Your task to perform on an android device: uninstall "Truecaller" Image 0: 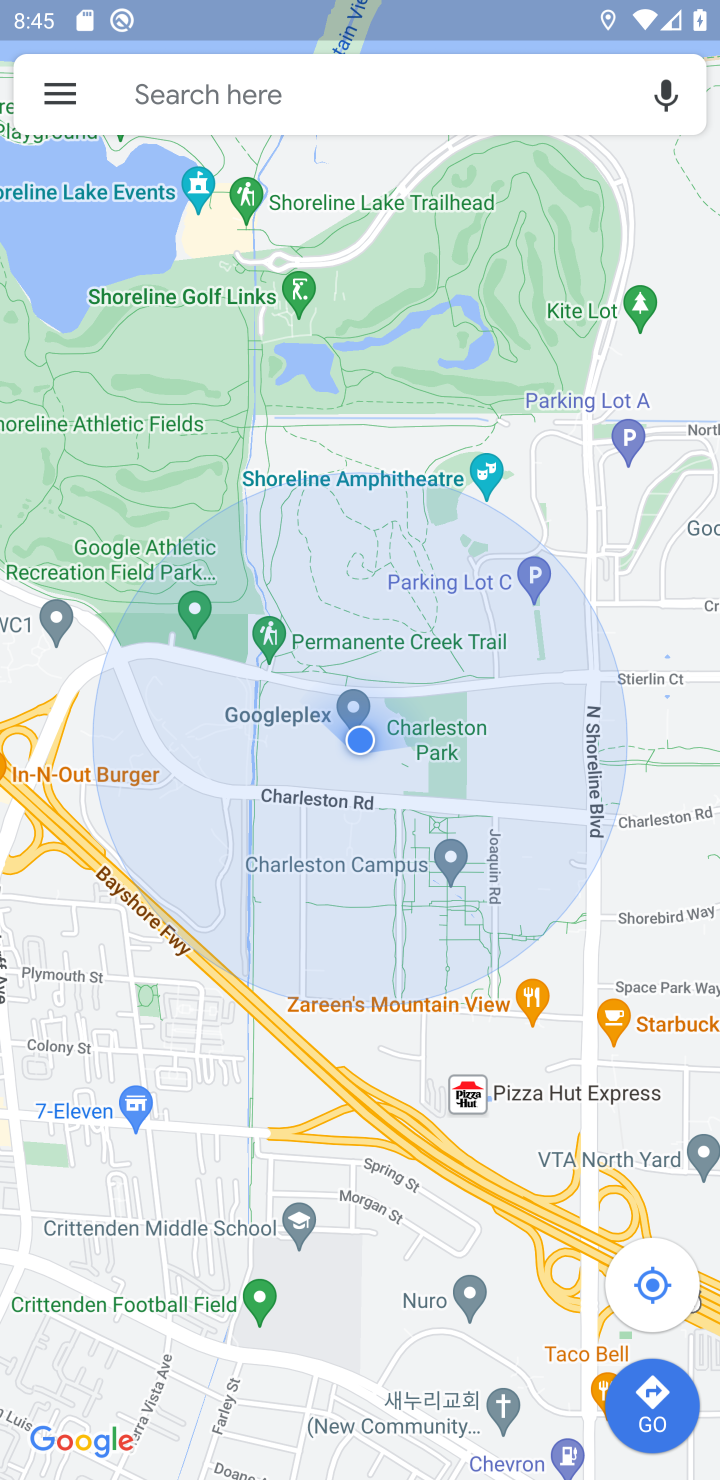
Step 0: press home button
Your task to perform on an android device: uninstall "Truecaller" Image 1: 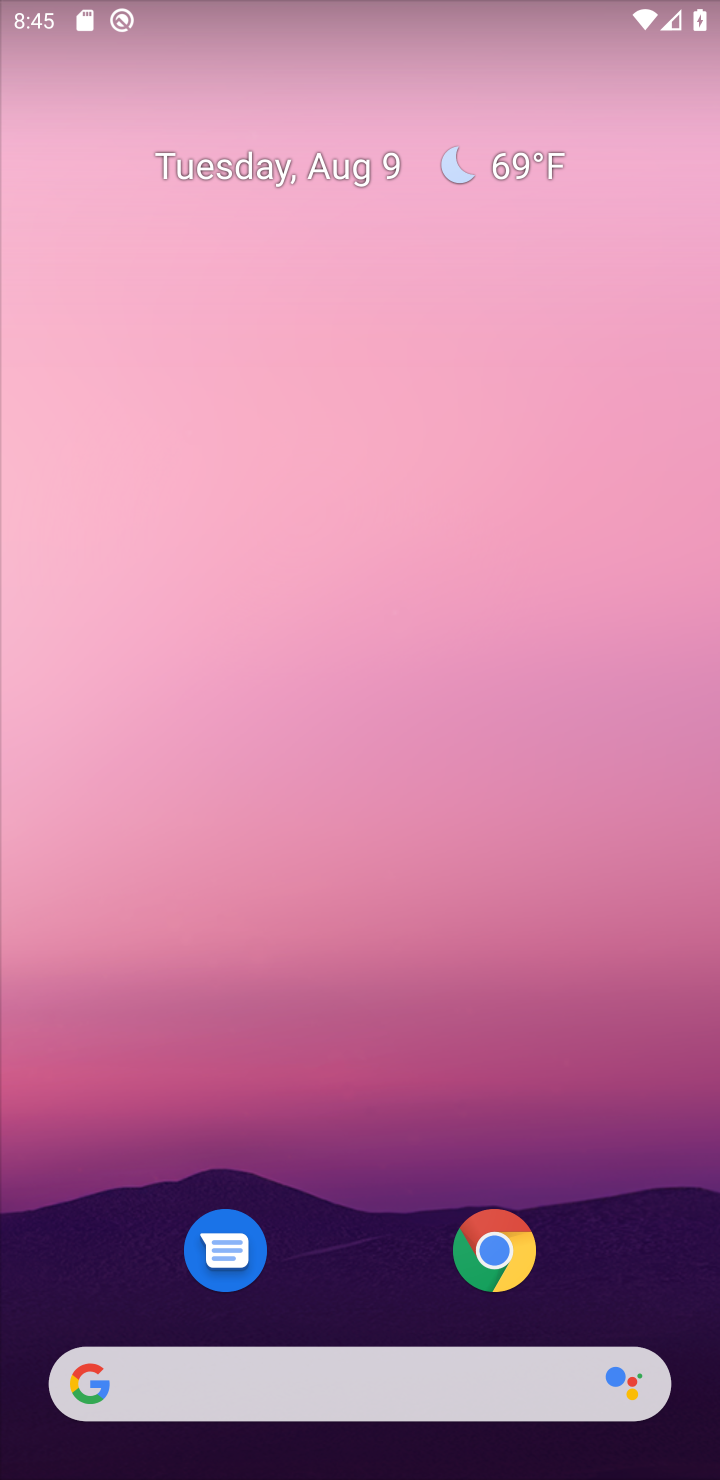
Step 1: drag from (706, 1006) to (683, 62)
Your task to perform on an android device: uninstall "Truecaller" Image 2: 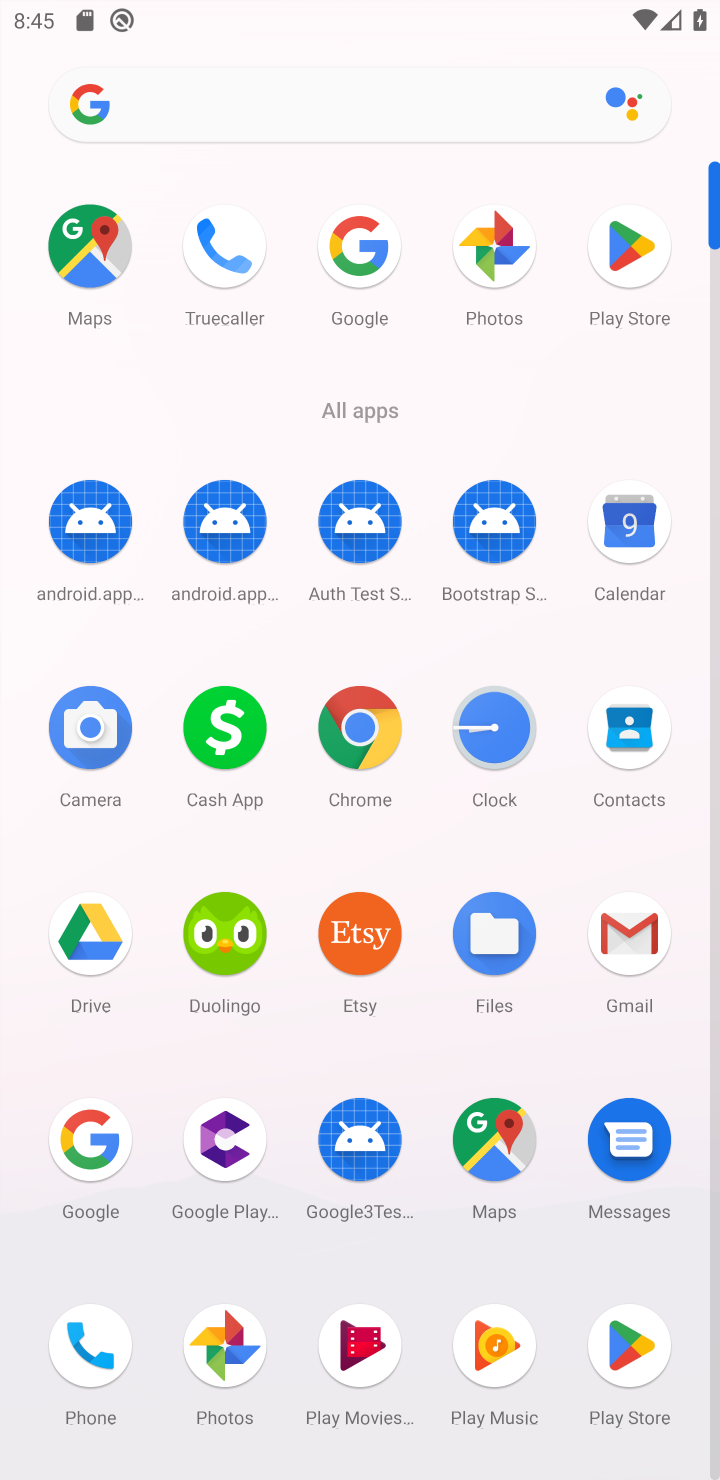
Step 2: click (638, 237)
Your task to perform on an android device: uninstall "Truecaller" Image 3: 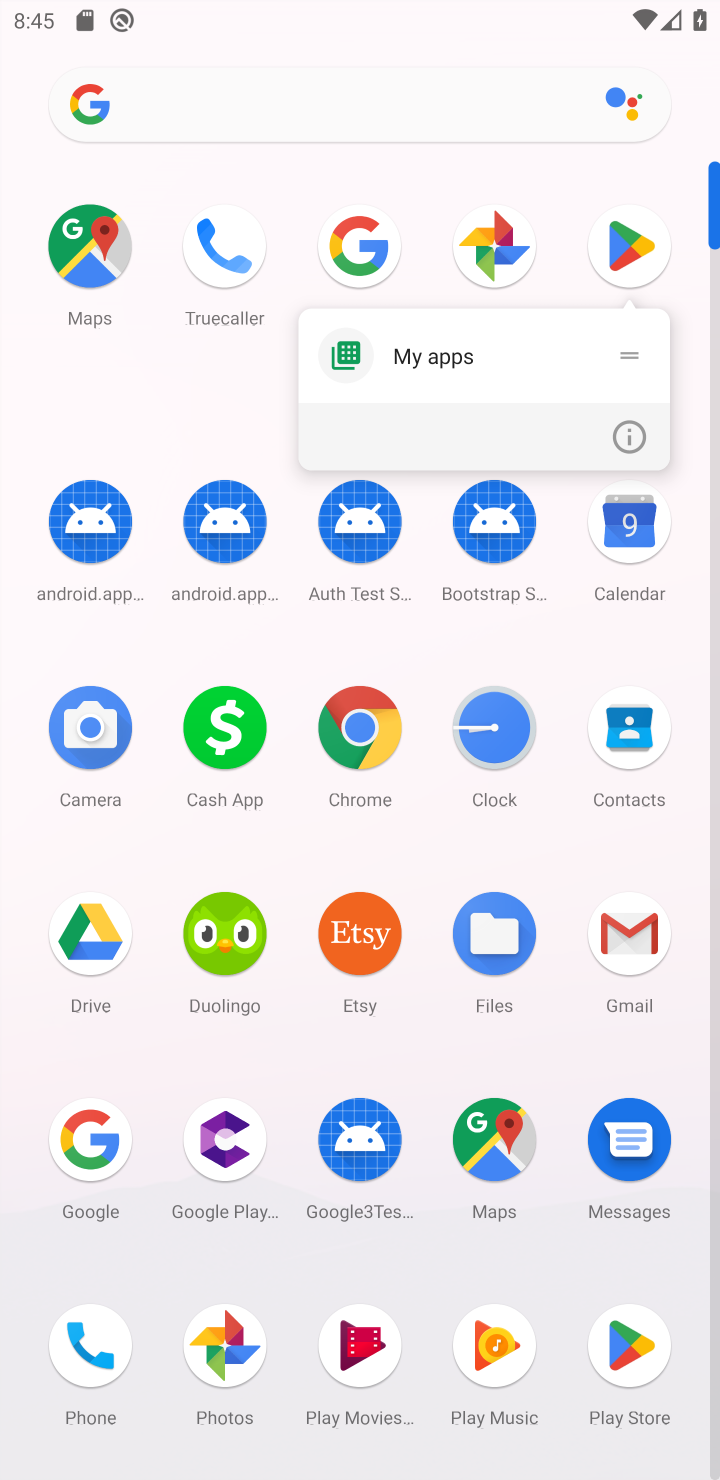
Step 3: click (280, 99)
Your task to perform on an android device: uninstall "Truecaller" Image 4: 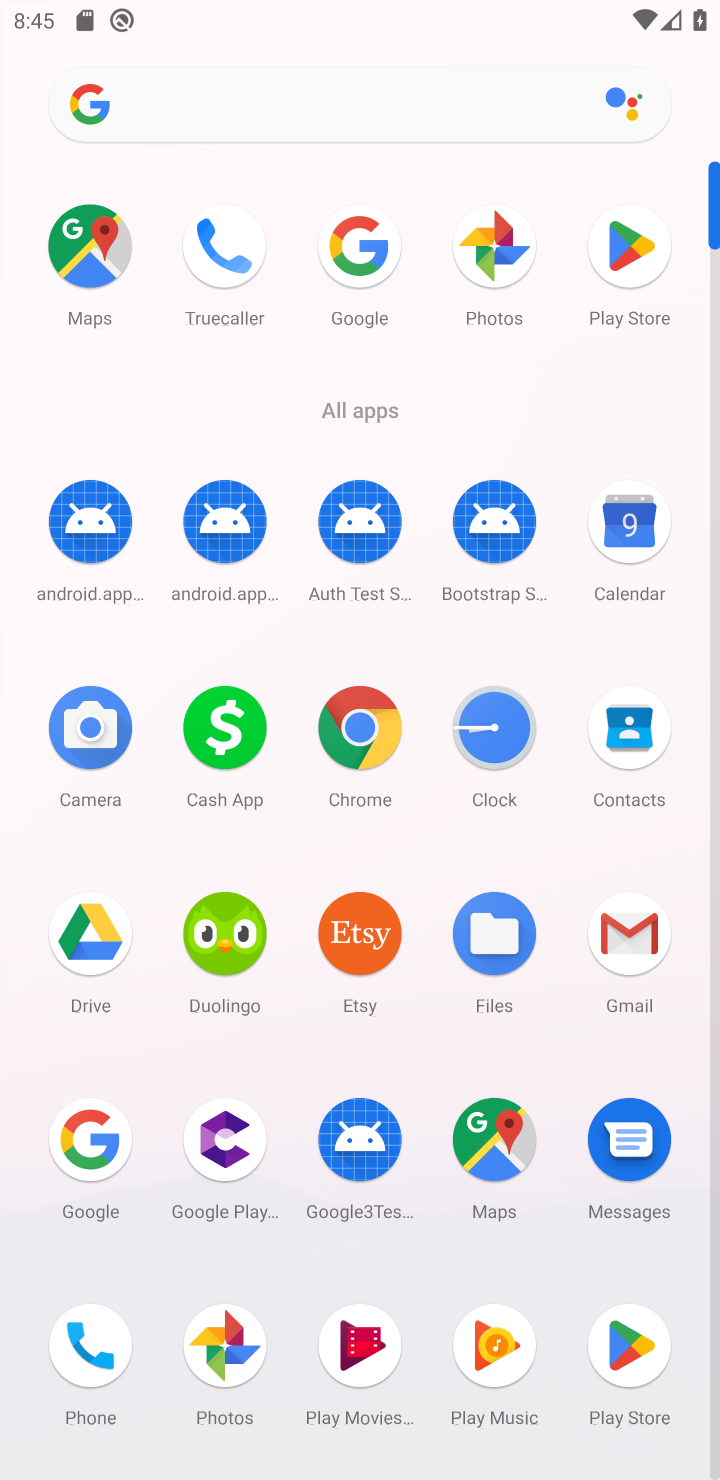
Step 4: type "ruecaller"
Your task to perform on an android device: uninstall "Truecaller" Image 5: 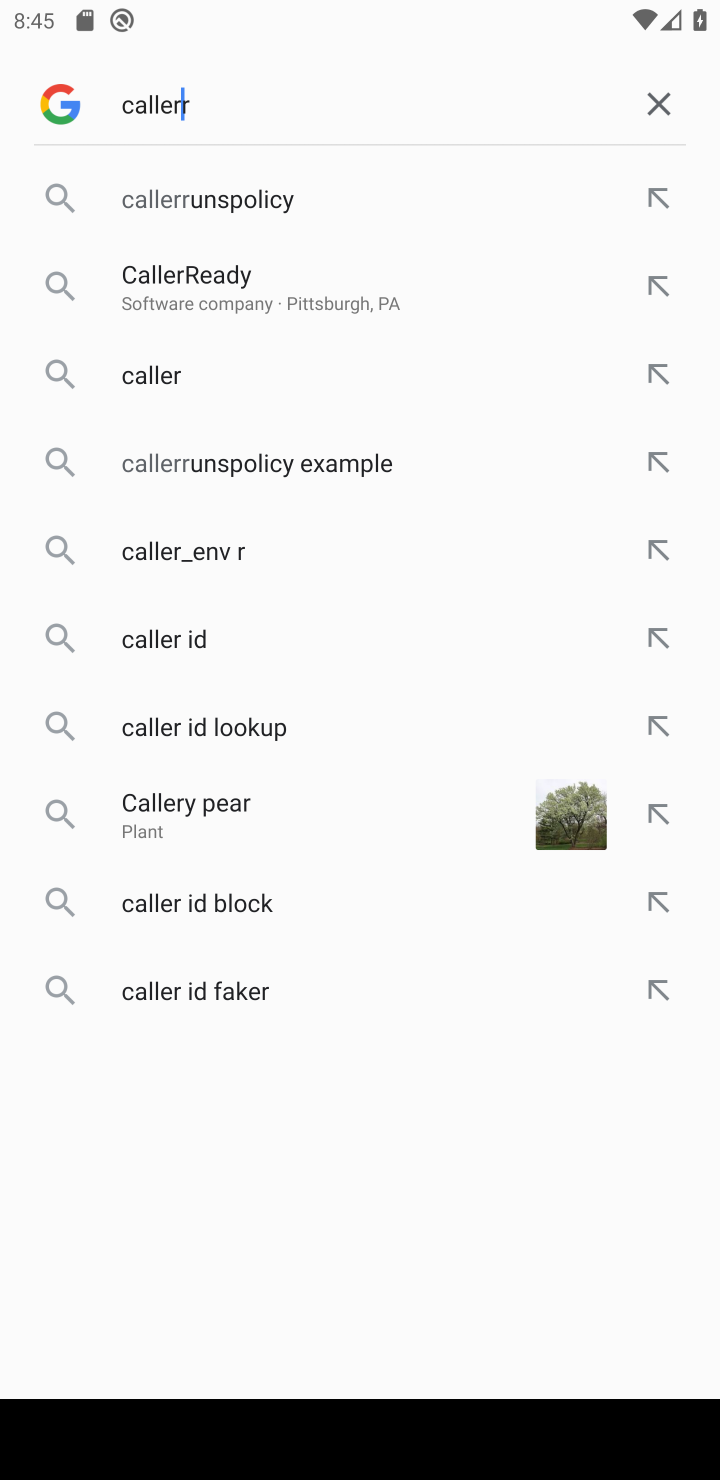
Step 5: click (671, 100)
Your task to perform on an android device: uninstall "Truecaller" Image 6: 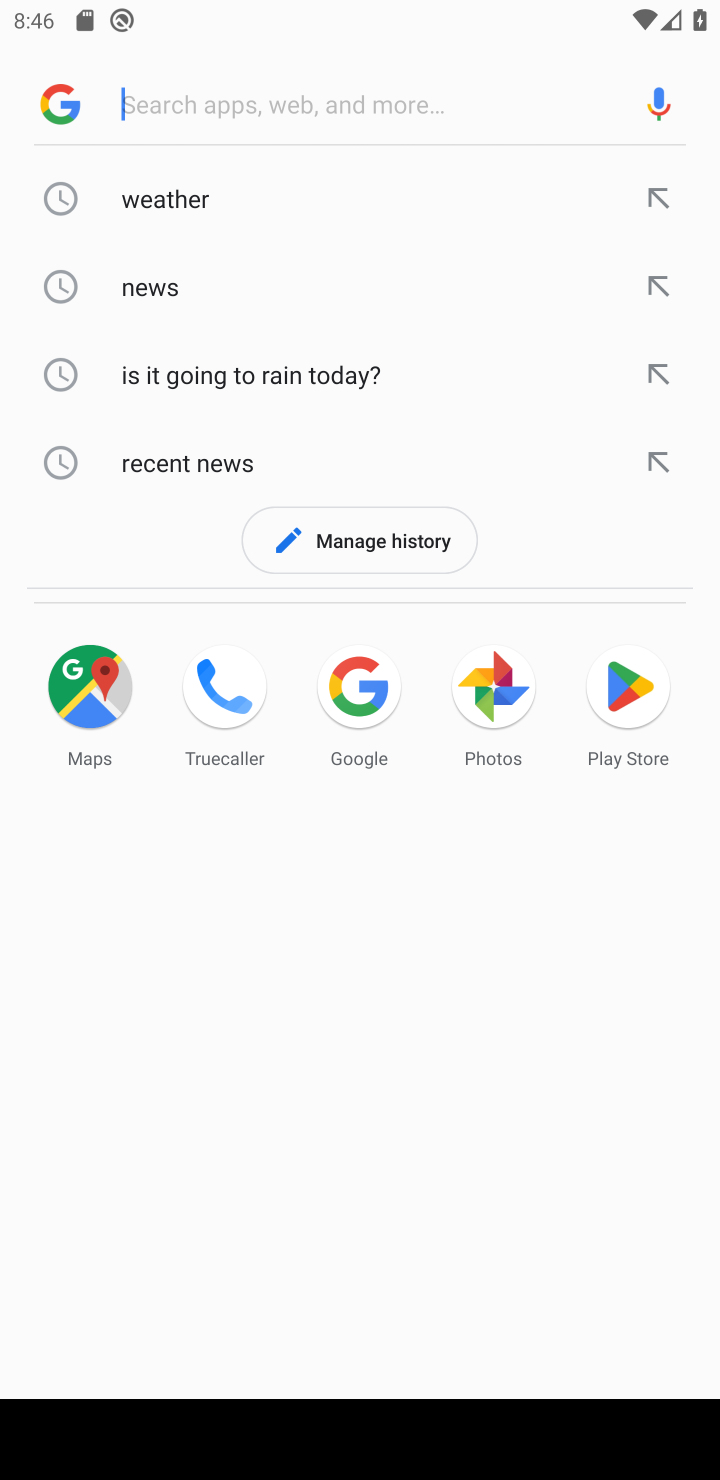
Step 6: type "Truecaller"
Your task to perform on an android device: uninstall "Truecaller" Image 7: 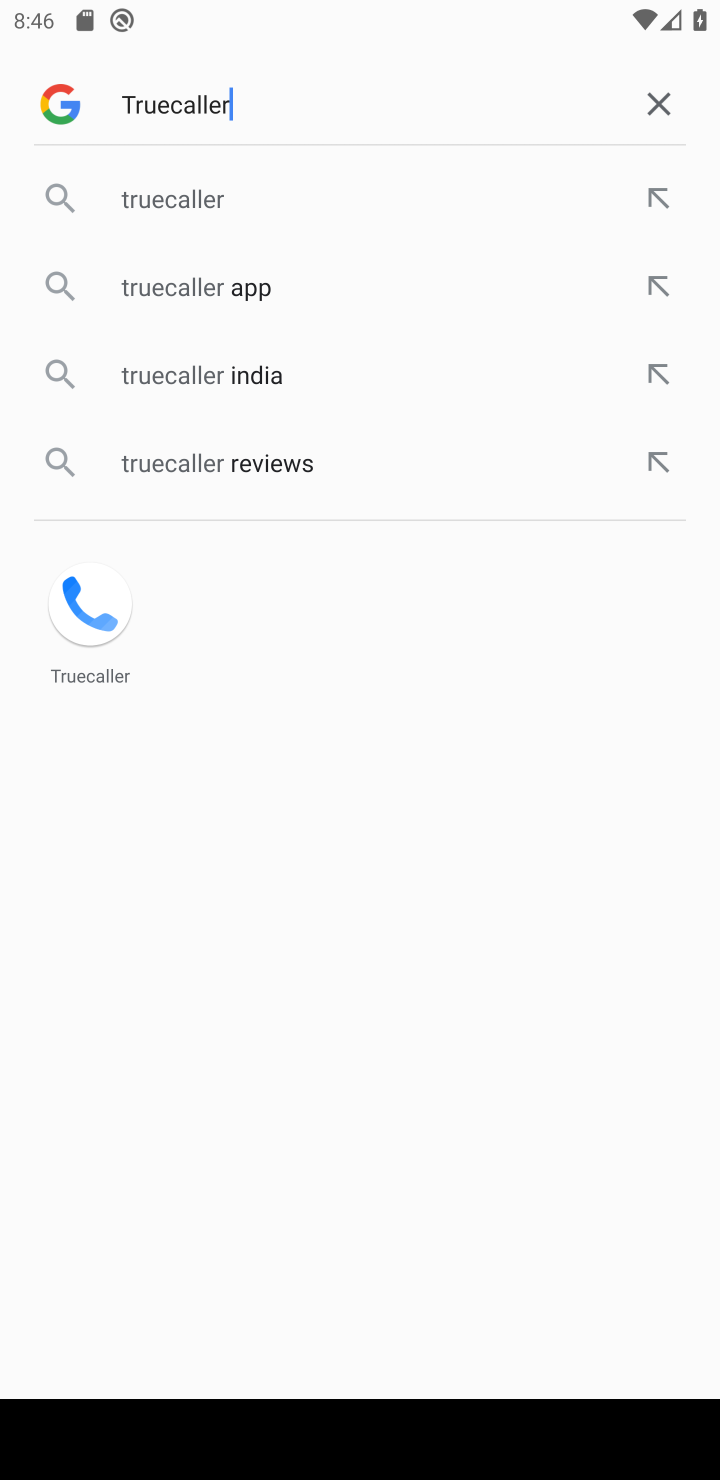
Step 7: click (185, 197)
Your task to perform on an android device: uninstall "Truecaller" Image 8: 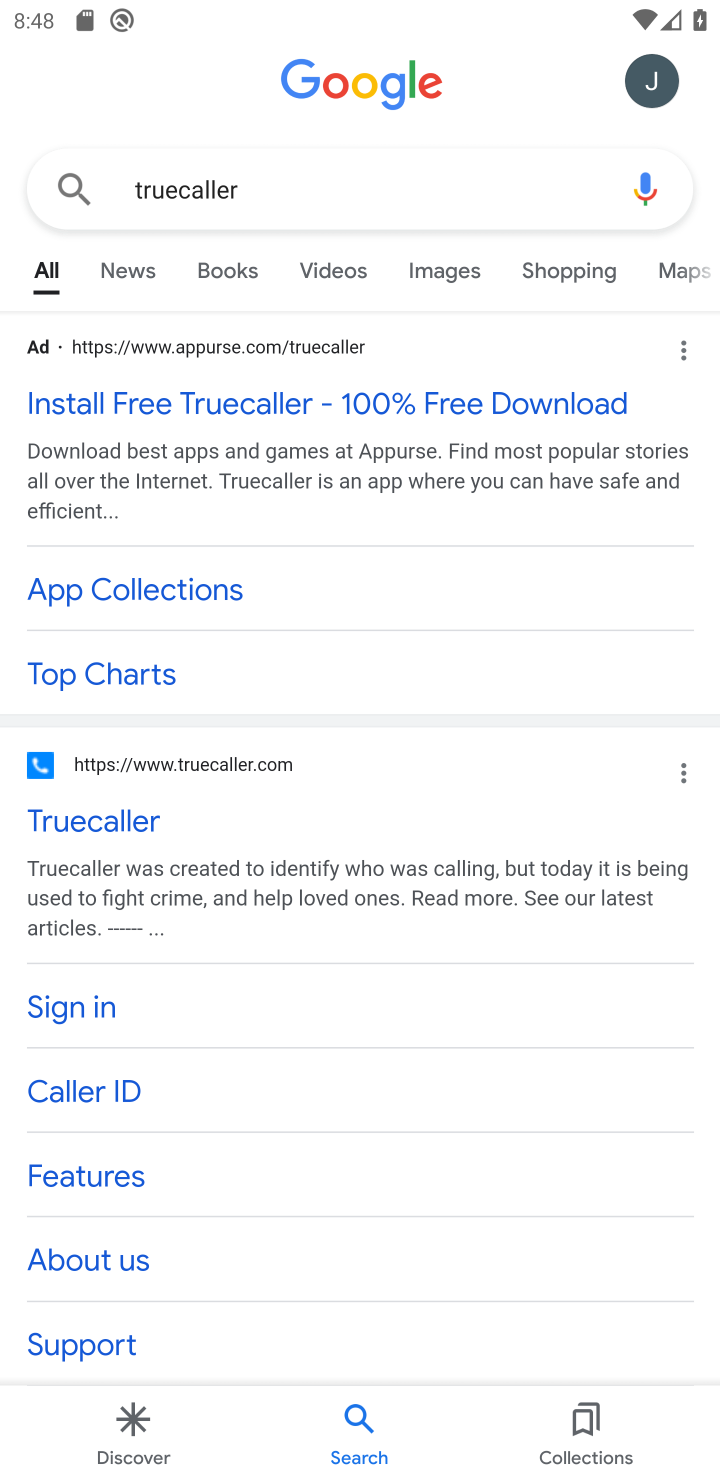
Step 8: press home button
Your task to perform on an android device: uninstall "Truecaller" Image 9: 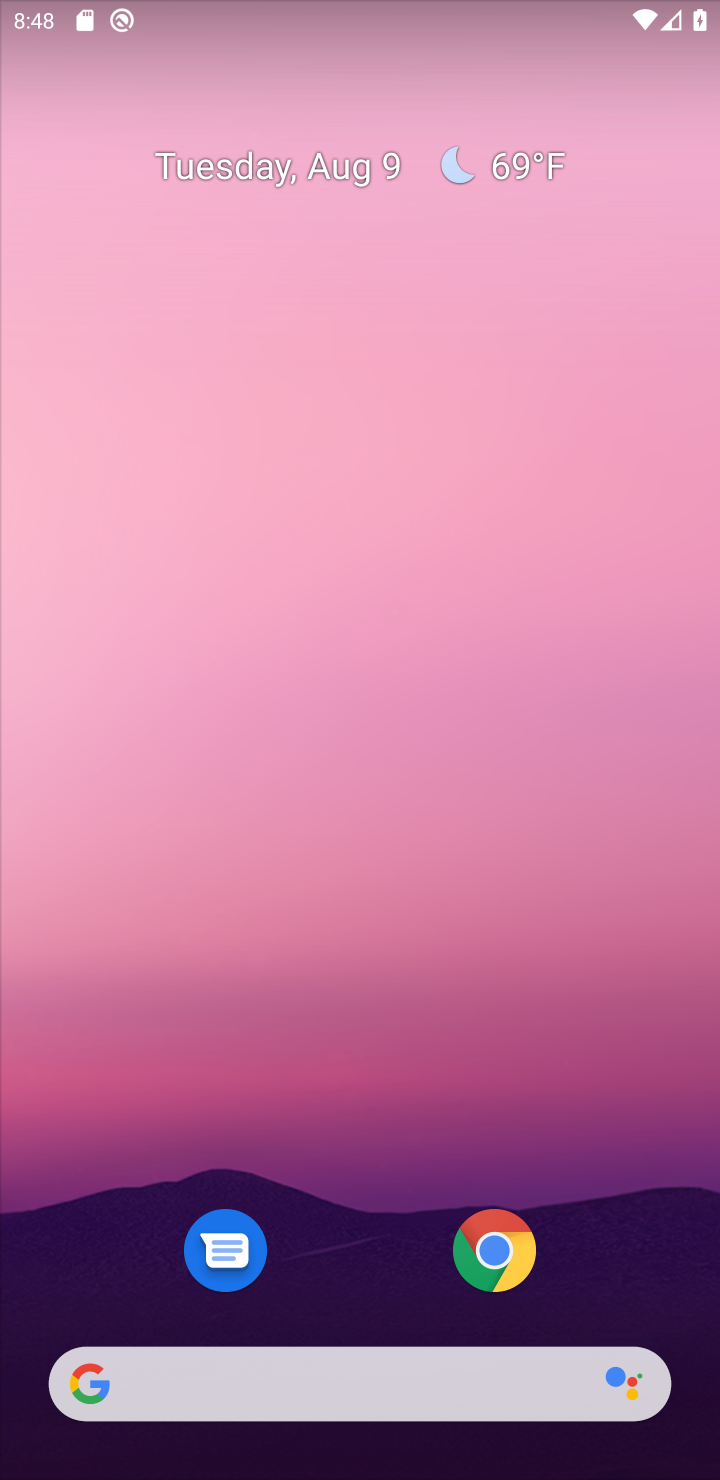
Step 9: drag from (697, 1207) to (719, 89)
Your task to perform on an android device: uninstall "Truecaller" Image 10: 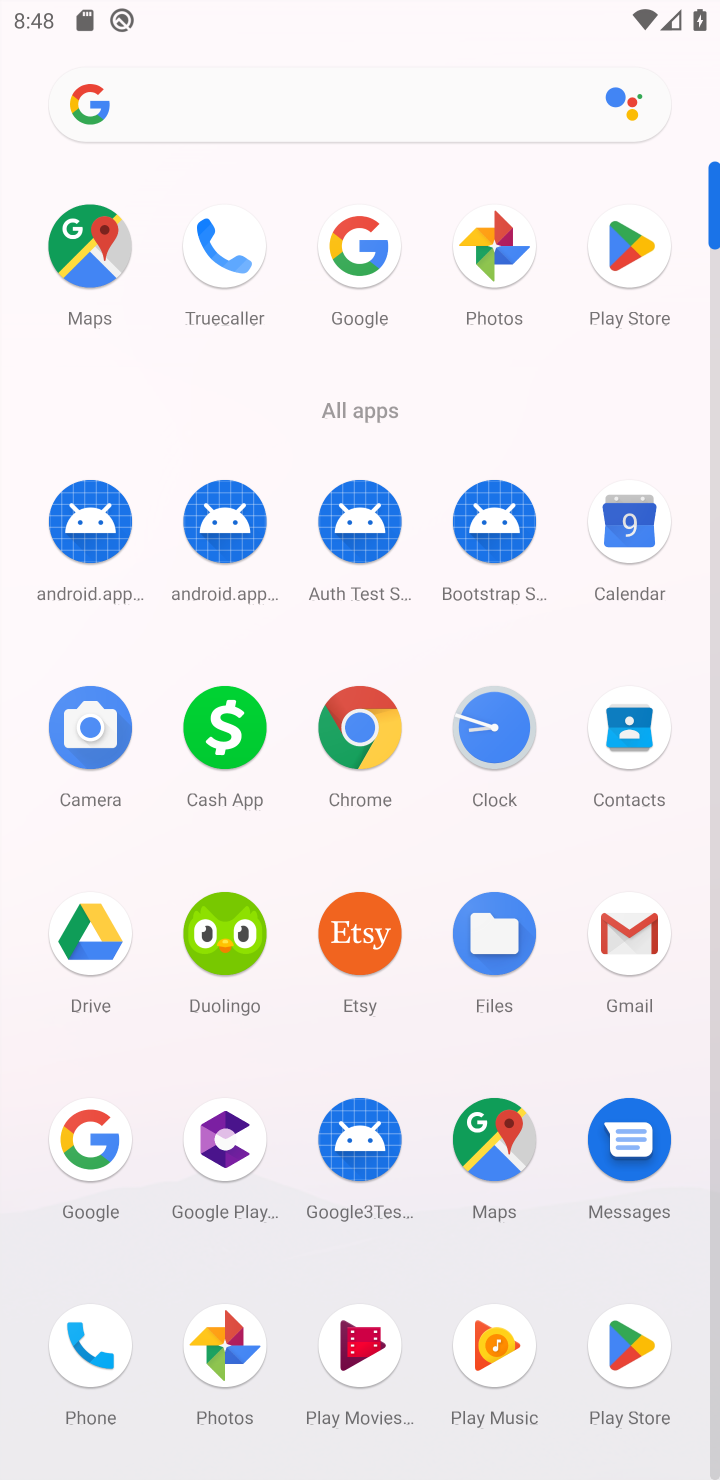
Step 10: drag from (223, 249) to (517, 84)
Your task to perform on an android device: uninstall "Truecaller" Image 11: 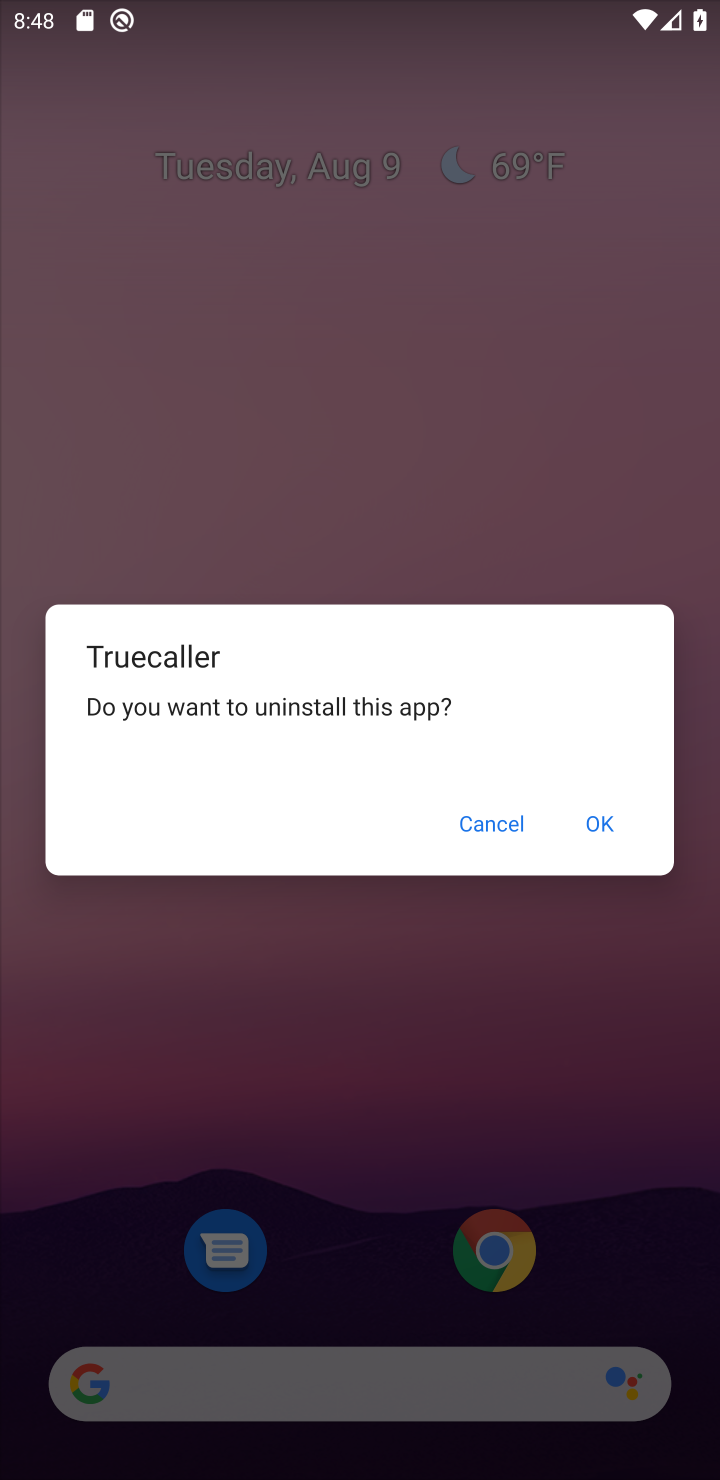
Step 11: click (596, 819)
Your task to perform on an android device: uninstall "Truecaller" Image 12: 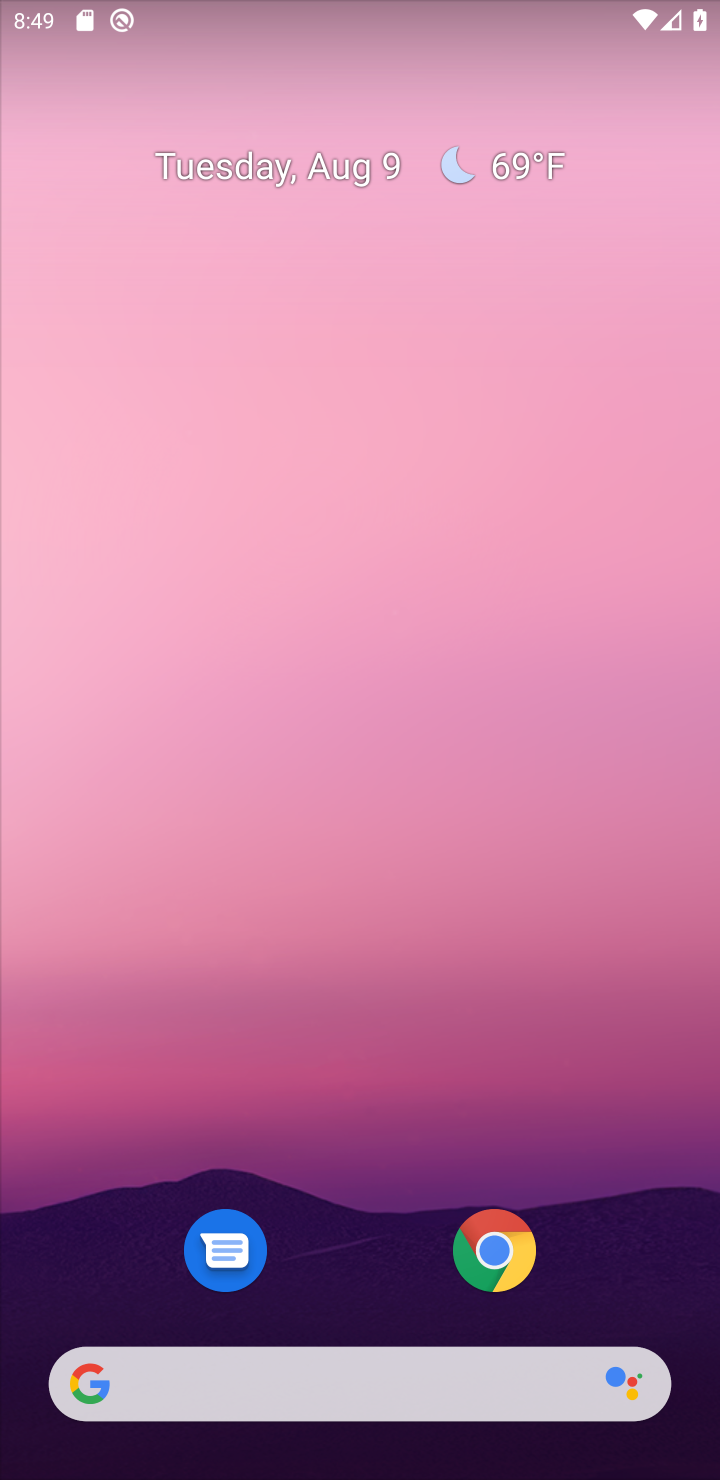
Step 12: task complete